Your task to perform on an android device: Open maps Image 0: 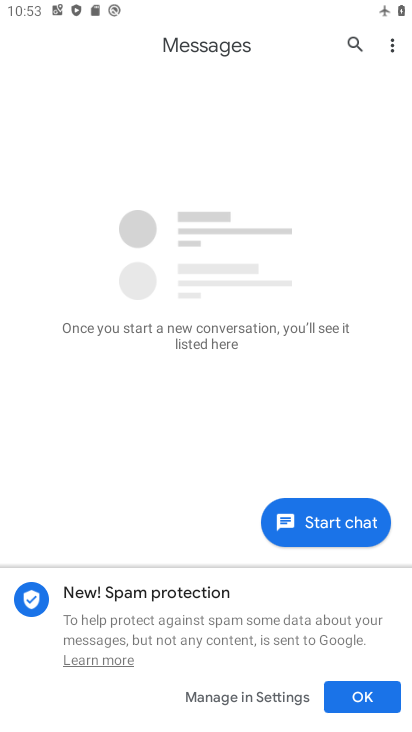
Step 0: drag from (240, 674) to (255, 466)
Your task to perform on an android device: Open maps Image 1: 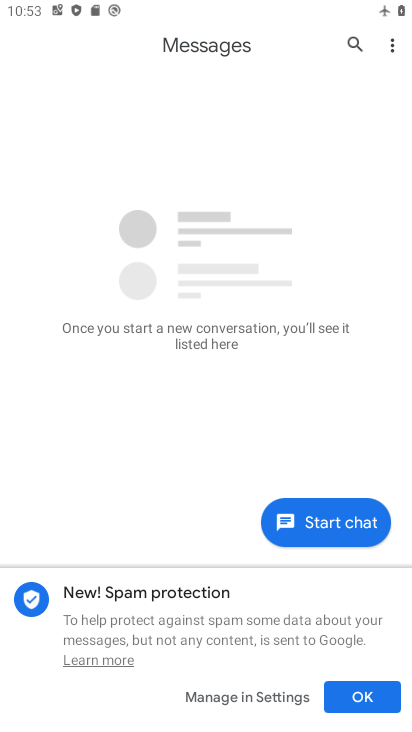
Step 1: press home button
Your task to perform on an android device: Open maps Image 2: 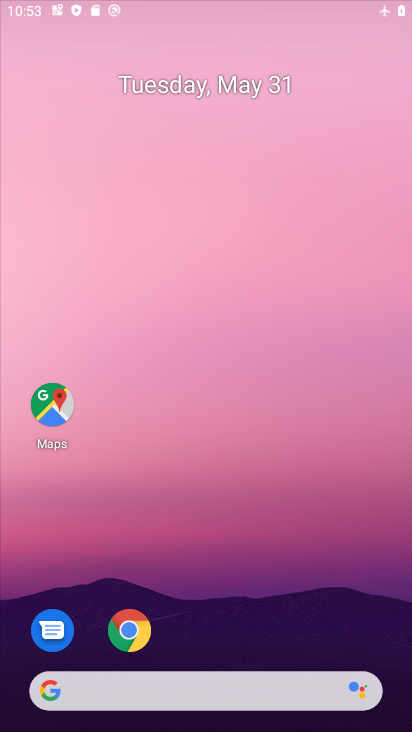
Step 2: drag from (227, 613) to (246, 141)
Your task to perform on an android device: Open maps Image 3: 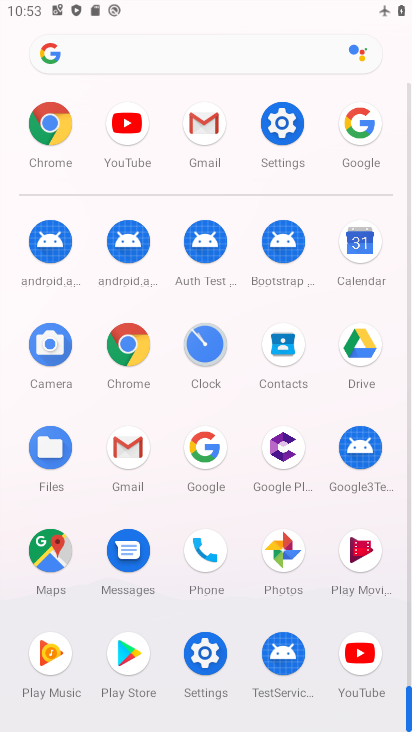
Step 3: drag from (203, 518) to (210, 323)
Your task to perform on an android device: Open maps Image 4: 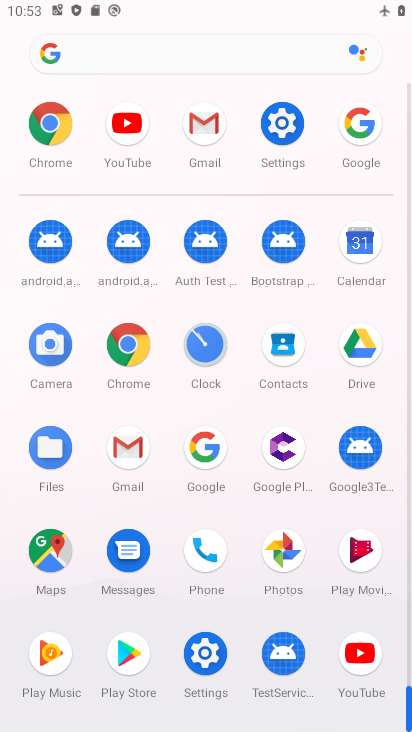
Step 4: click (50, 569)
Your task to perform on an android device: Open maps Image 5: 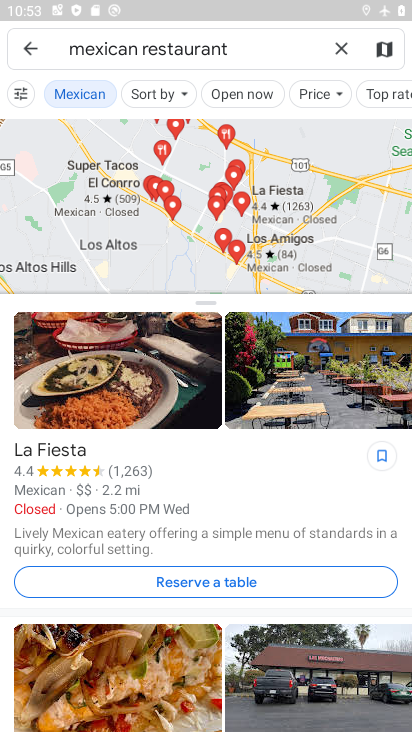
Step 5: task complete